Your task to perform on an android device: Go to CNN.com Image 0: 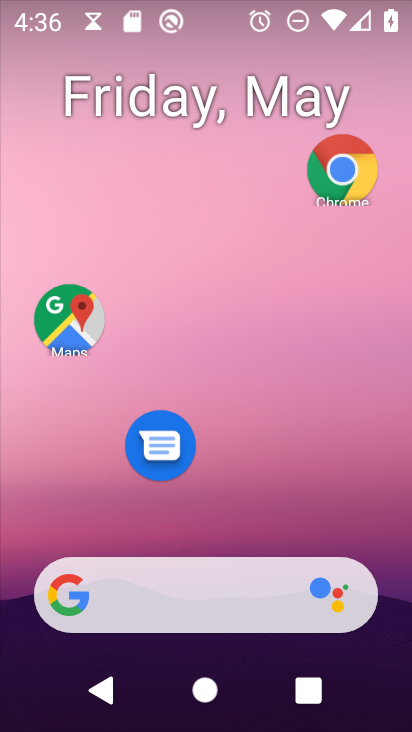
Step 0: click (347, 182)
Your task to perform on an android device: Go to CNN.com Image 1: 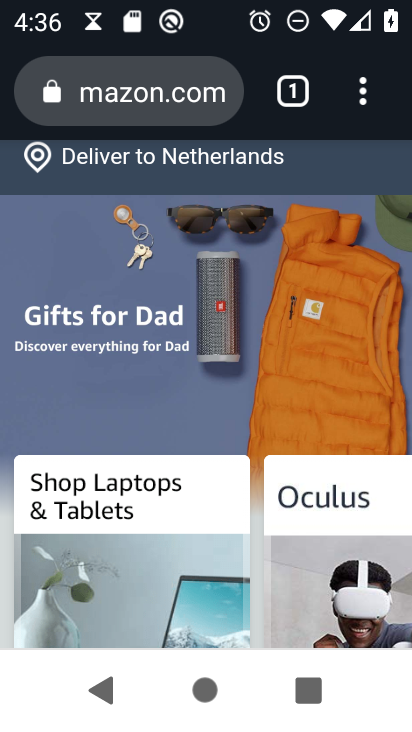
Step 1: click (149, 96)
Your task to perform on an android device: Go to CNN.com Image 2: 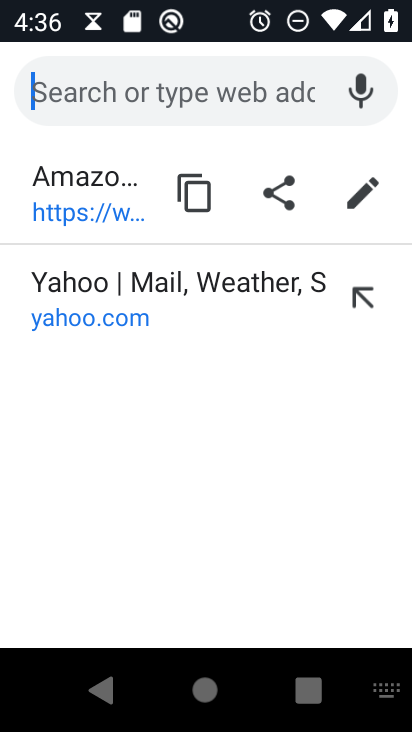
Step 2: type "www.cnn.com"
Your task to perform on an android device: Go to CNN.com Image 3: 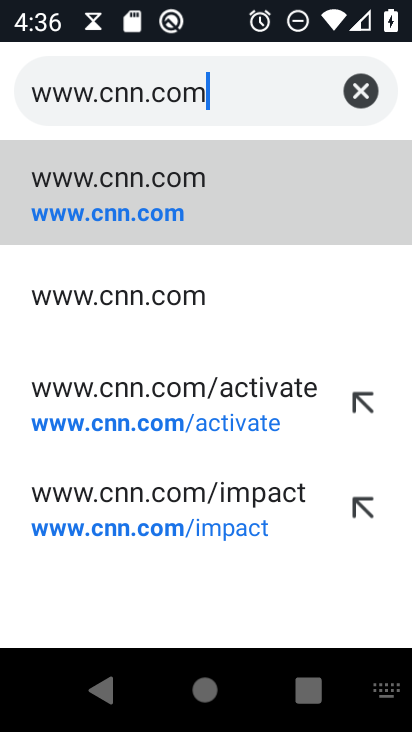
Step 3: click (160, 212)
Your task to perform on an android device: Go to CNN.com Image 4: 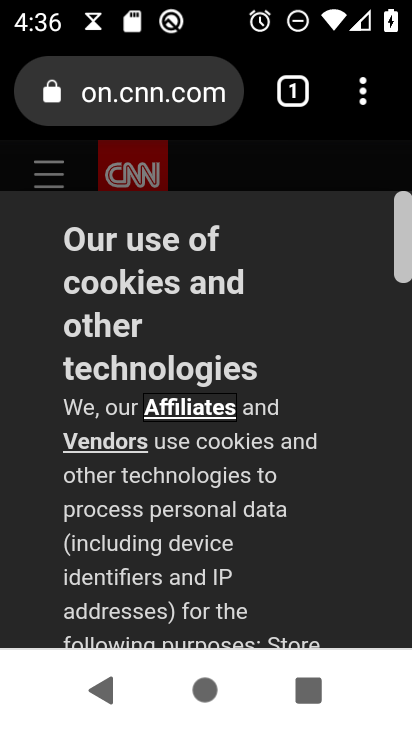
Step 4: task complete